Your task to perform on an android device: turn off notifications in google photos Image 0: 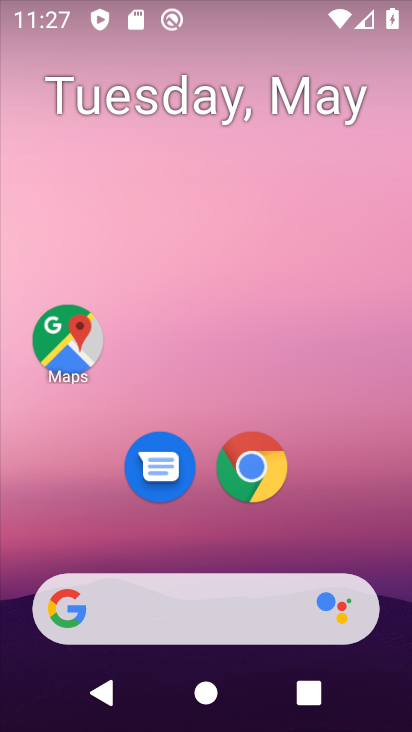
Step 0: drag from (194, 556) to (110, 46)
Your task to perform on an android device: turn off notifications in google photos Image 1: 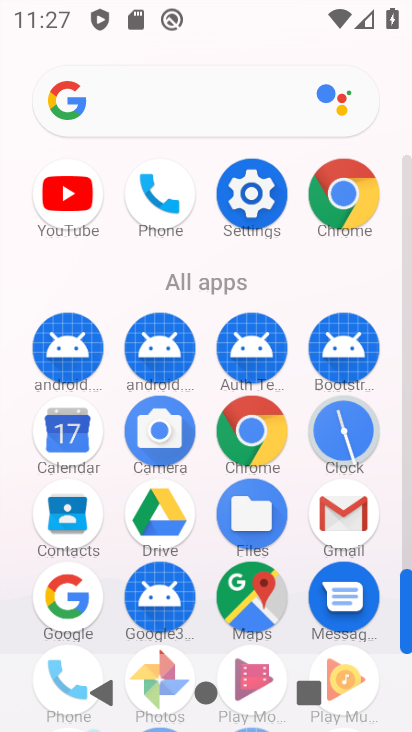
Step 1: click (159, 651)
Your task to perform on an android device: turn off notifications in google photos Image 2: 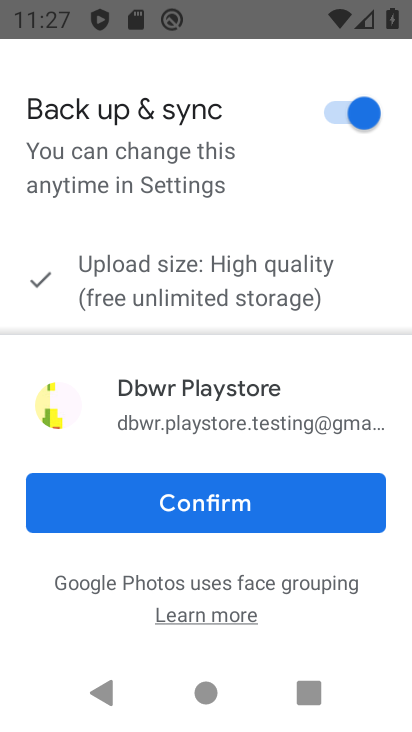
Step 2: click (192, 501)
Your task to perform on an android device: turn off notifications in google photos Image 3: 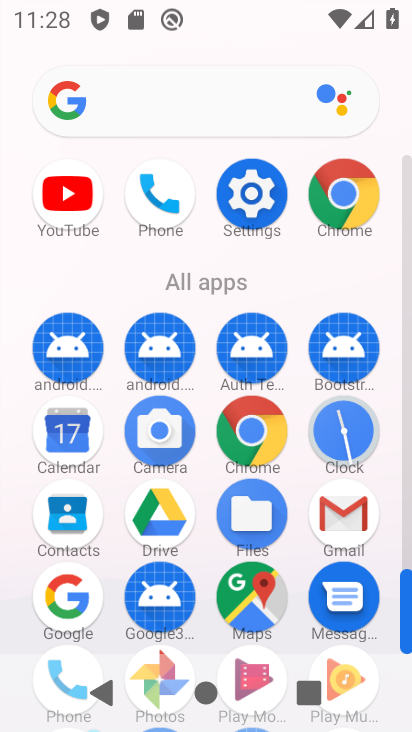
Step 3: click (159, 649)
Your task to perform on an android device: turn off notifications in google photos Image 4: 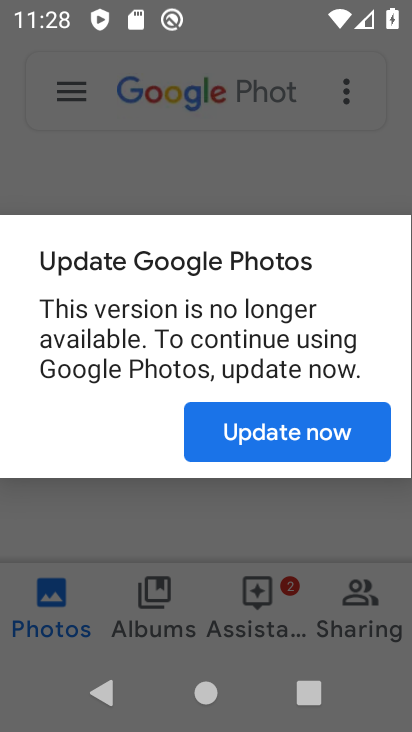
Step 4: click (293, 415)
Your task to perform on an android device: turn off notifications in google photos Image 5: 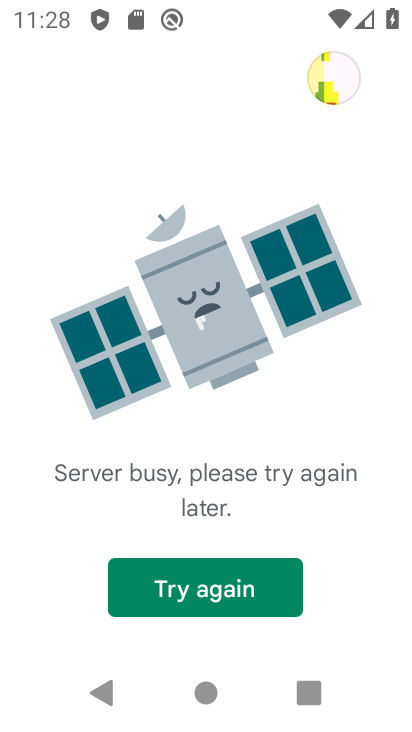
Step 5: press home button
Your task to perform on an android device: turn off notifications in google photos Image 6: 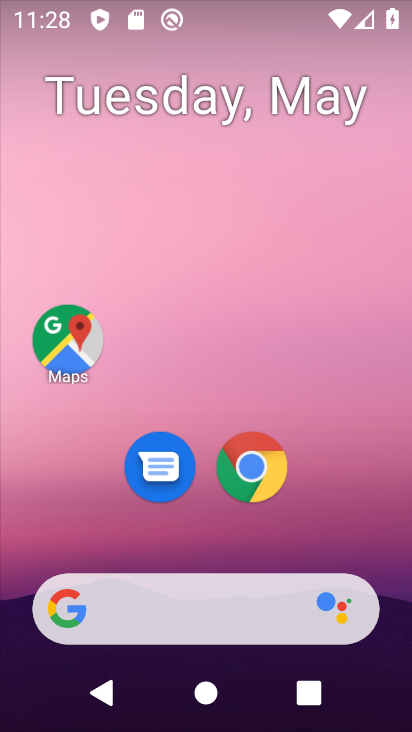
Step 6: drag from (196, 574) to (138, 18)
Your task to perform on an android device: turn off notifications in google photos Image 7: 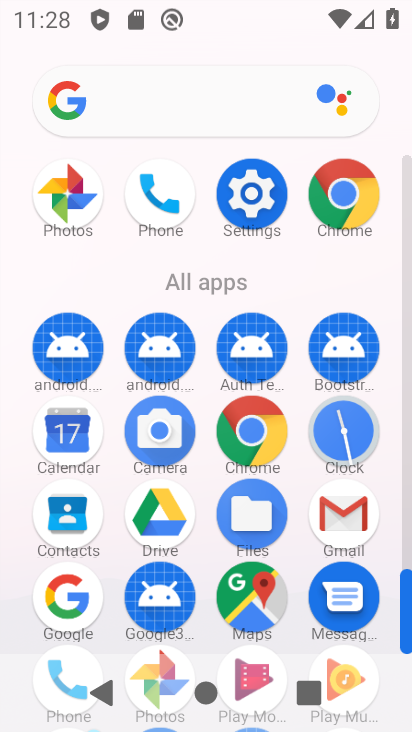
Step 7: click (165, 656)
Your task to perform on an android device: turn off notifications in google photos Image 8: 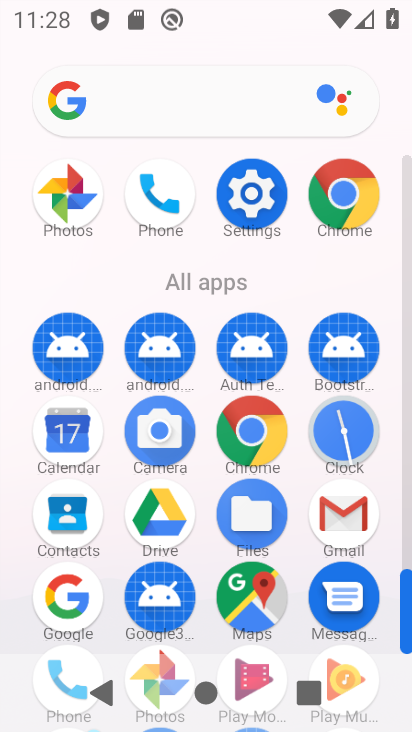
Step 8: drag from (213, 549) to (187, 162)
Your task to perform on an android device: turn off notifications in google photos Image 9: 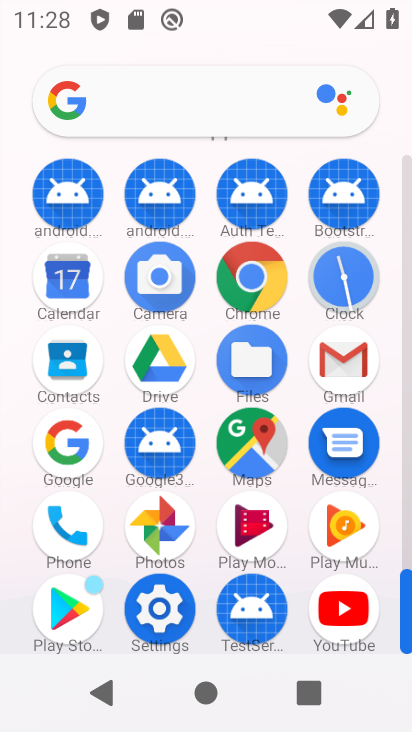
Step 9: click (162, 539)
Your task to perform on an android device: turn off notifications in google photos Image 10: 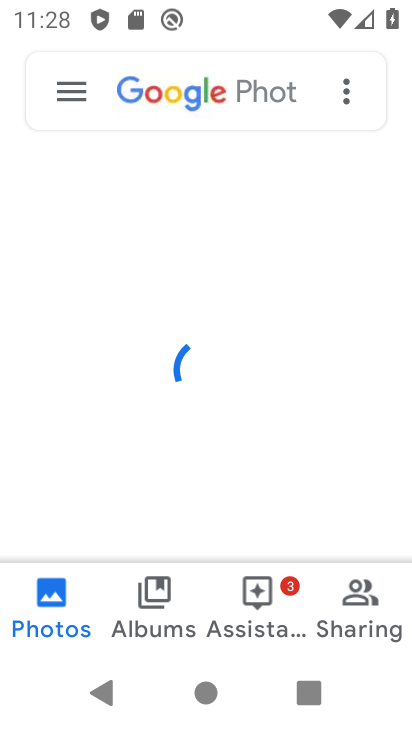
Step 10: drag from (171, 651) to (163, 539)
Your task to perform on an android device: turn off notifications in google photos Image 11: 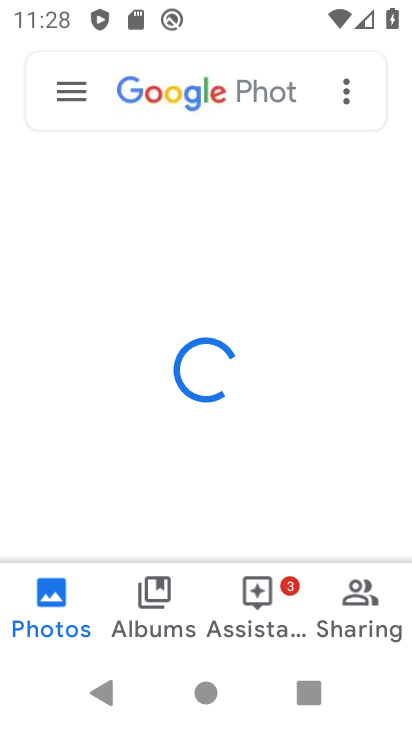
Step 11: click (77, 93)
Your task to perform on an android device: turn off notifications in google photos Image 12: 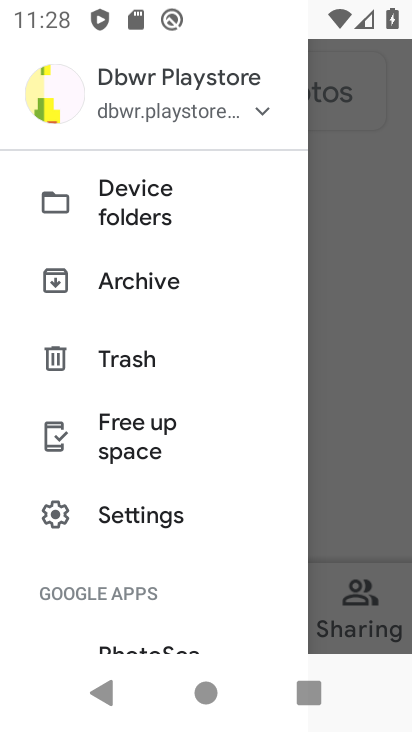
Step 12: click (156, 518)
Your task to perform on an android device: turn off notifications in google photos Image 13: 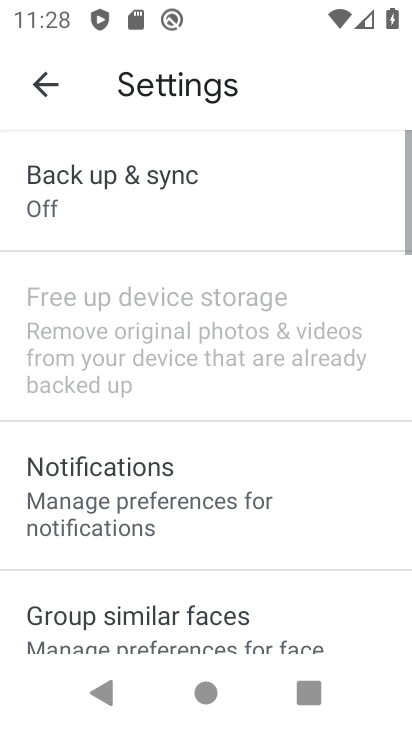
Step 13: drag from (156, 518) to (130, 299)
Your task to perform on an android device: turn off notifications in google photos Image 14: 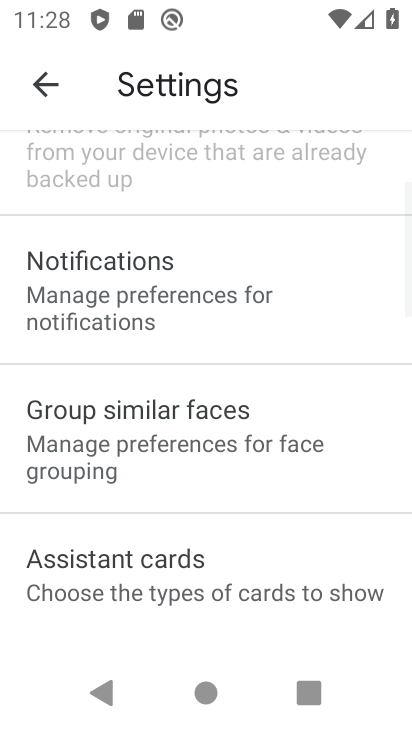
Step 14: click (130, 299)
Your task to perform on an android device: turn off notifications in google photos Image 15: 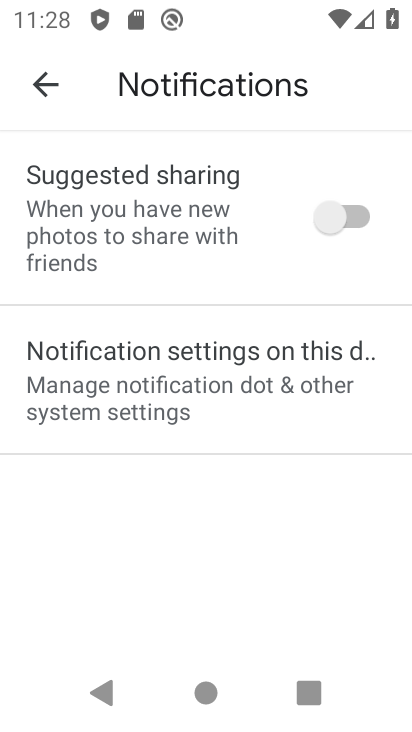
Step 15: click (184, 377)
Your task to perform on an android device: turn off notifications in google photos Image 16: 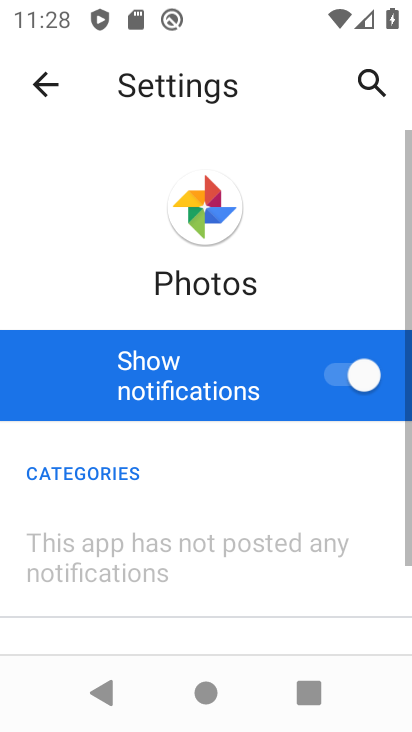
Step 16: click (334, 367)
Your task to perform on an android device: turn off notifications in google photos Image 17: 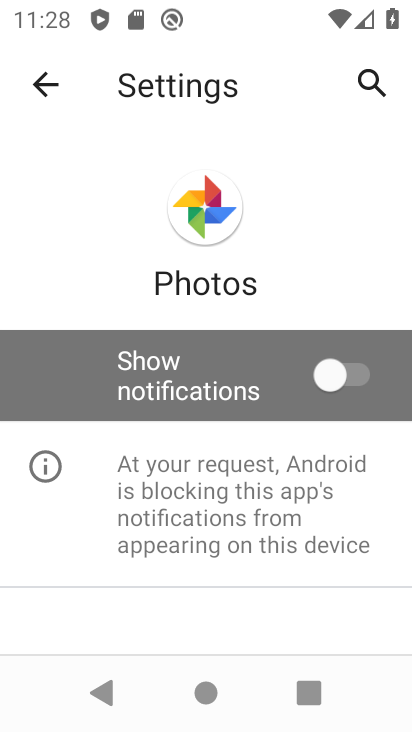
Step 17: task complete